Your task to perform on an android device: Is it going to rain this weekend? Image 0: 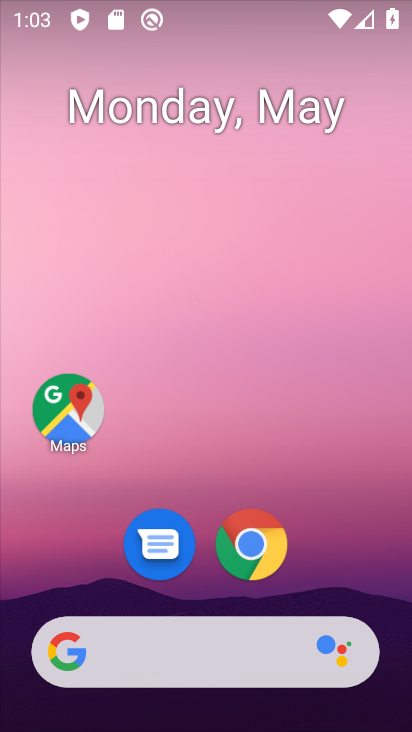
Step 0: click (241, 651)
Your task to perform on an android device: Is it going to rain this weekend? Image 1: 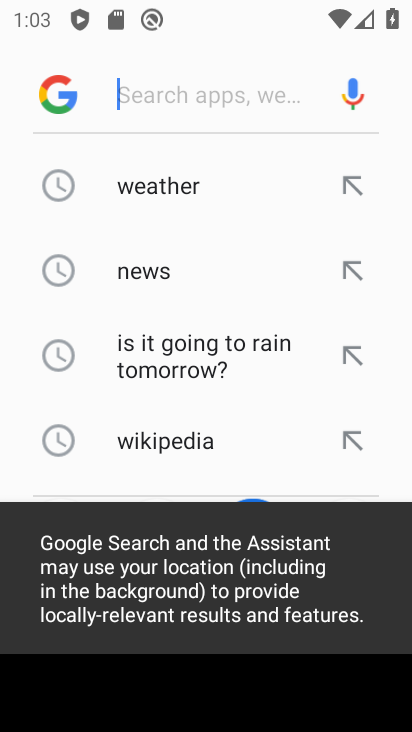
Step 1: click (177, 186)
Your task to perform on an android device: Is it going to rain this weekend? Image 2: 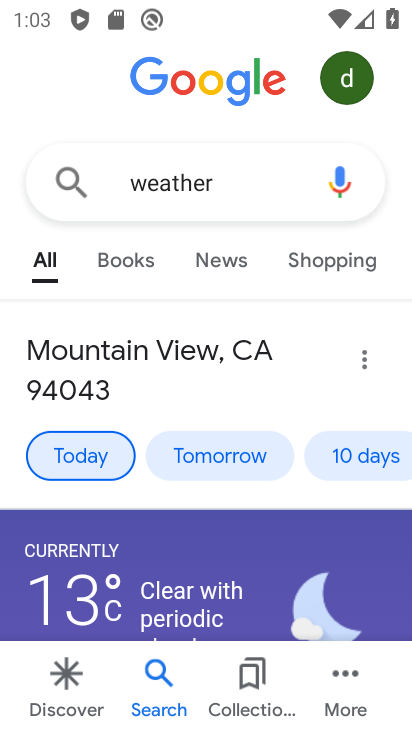
Step 2: click (358, 455)
Your task to perform on an android device: Is it going to rain this weekend? Image 3: 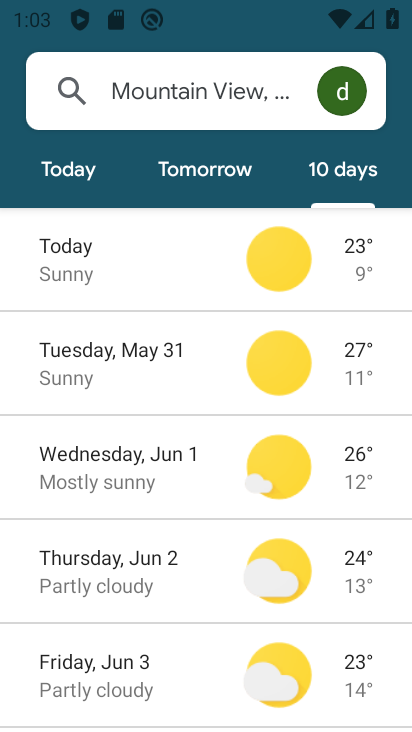
Step 3: drag from (186, 627) to (235, 308)
Your task to perform on an android device: Is it going to rain this weekend? Image 4: 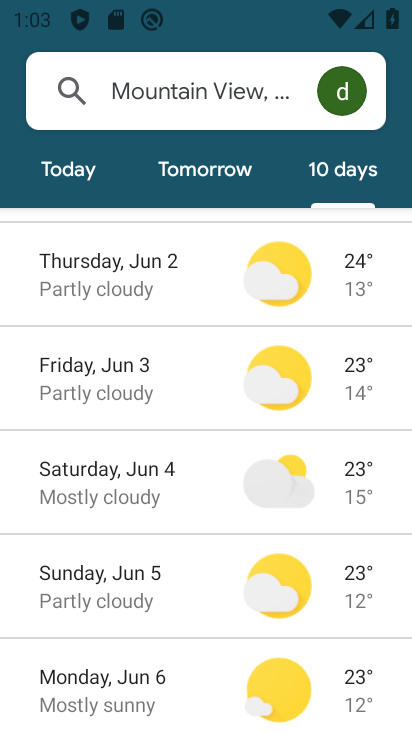
Step 4: drag from (200, 589) to (199, 442)
Your task to perform on an android device: Is it going to rain this weekend? Image 5: 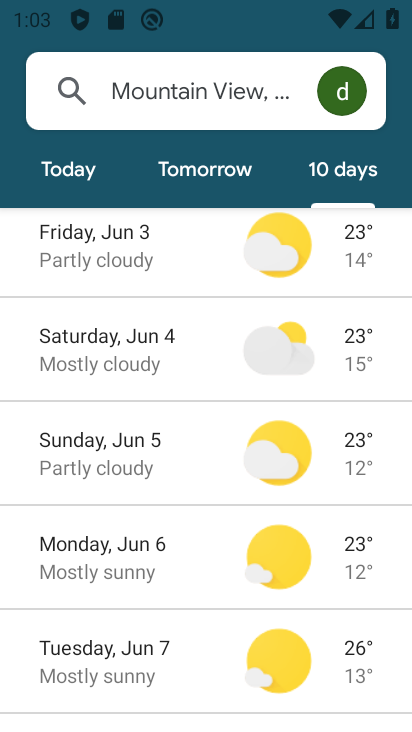
Step 5: click (177, 358)
Your task to perform on an android device: Is it going to rain this weekend? Image 6: 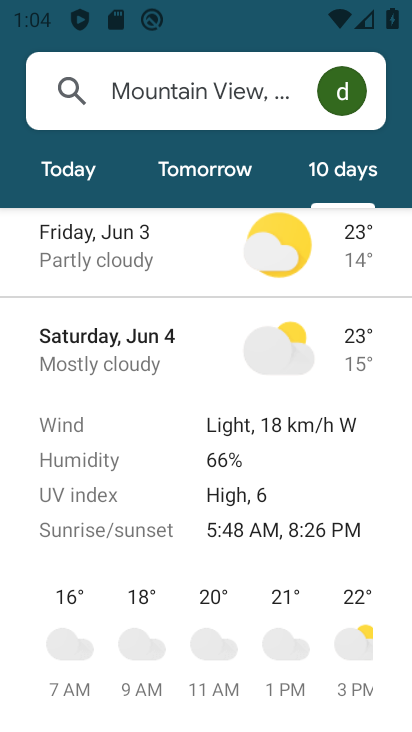
Step 6: task complete